Your task to perform on an android device: Go to Google maps Image 0: 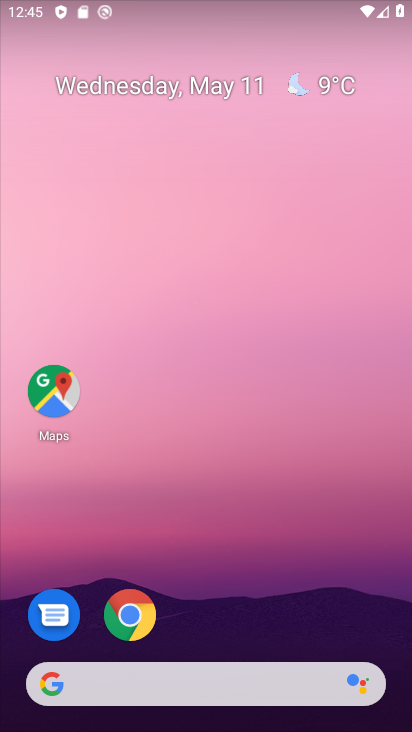
Step 0: click (67, 386)
Your task to perform on an android device: Go to Google maps Image 1: 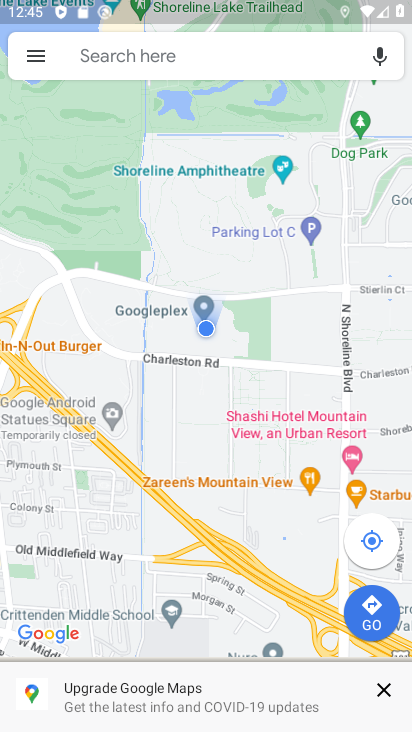
Step 1: task complete